Your task to perform on an android device: Search for the new Steph Curry shoes on Nike.com Image 0: 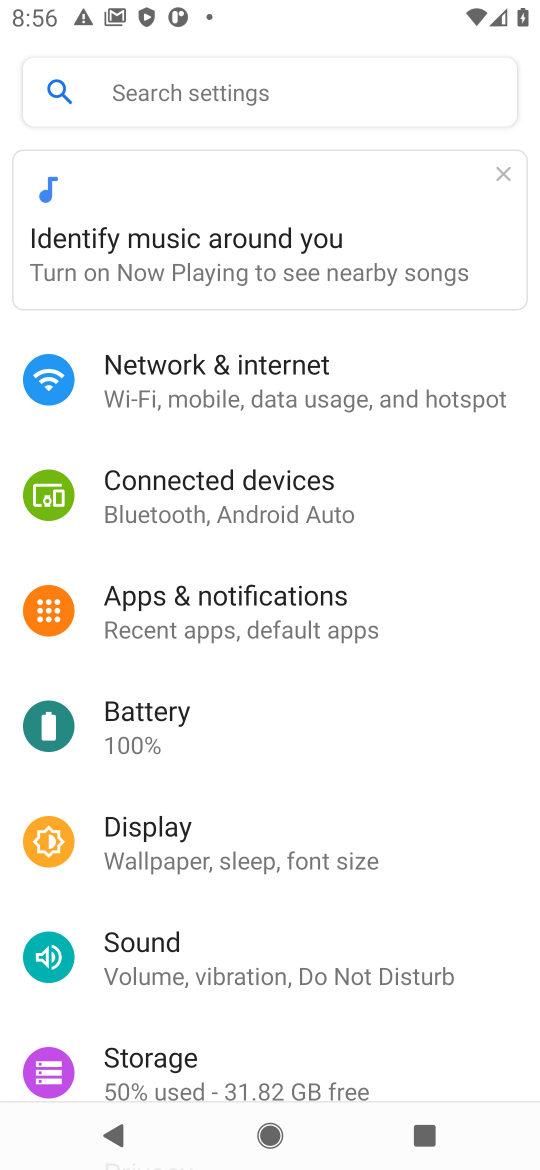
Step 0: press home button
Your task to perform on an android device: Search for the new Steph Curry shoes on Nike.com Image 1: 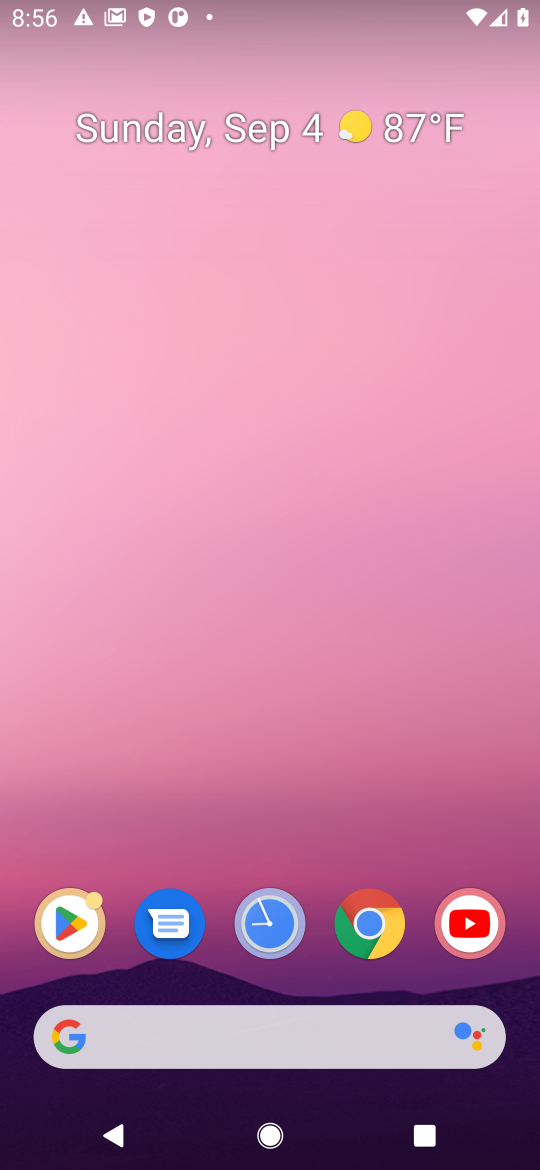
Step 1: click (419, 1027)
Your task to perform on an android device: Search for the new Steph Curry shoes on Nike.com Image 2: 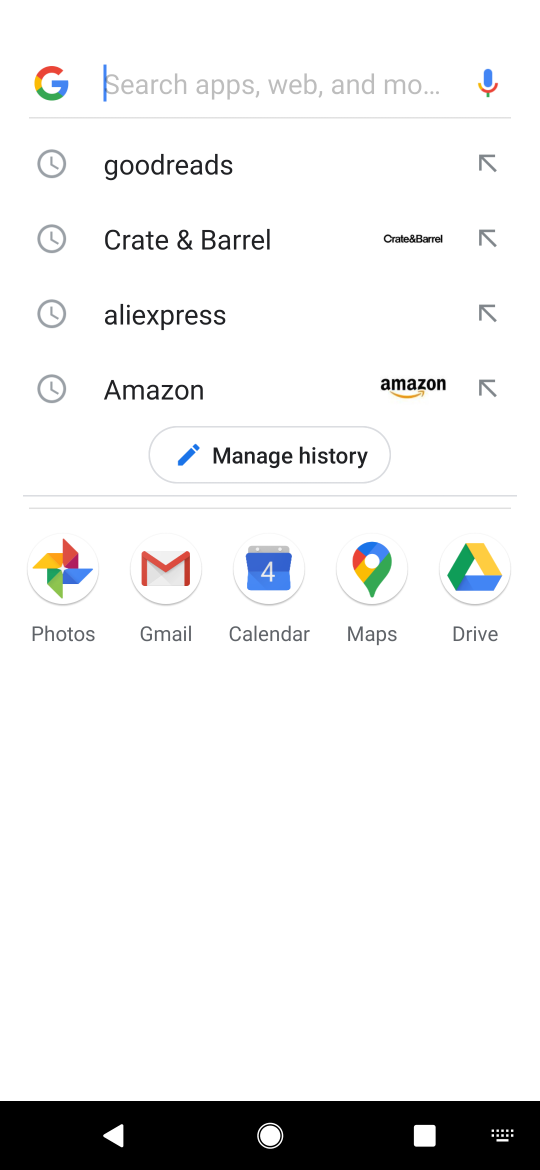
Step 2: type "nike.com"
Your task to perform on an android device: Search for the new Steph Curry shoes on Nike.com Image 3: 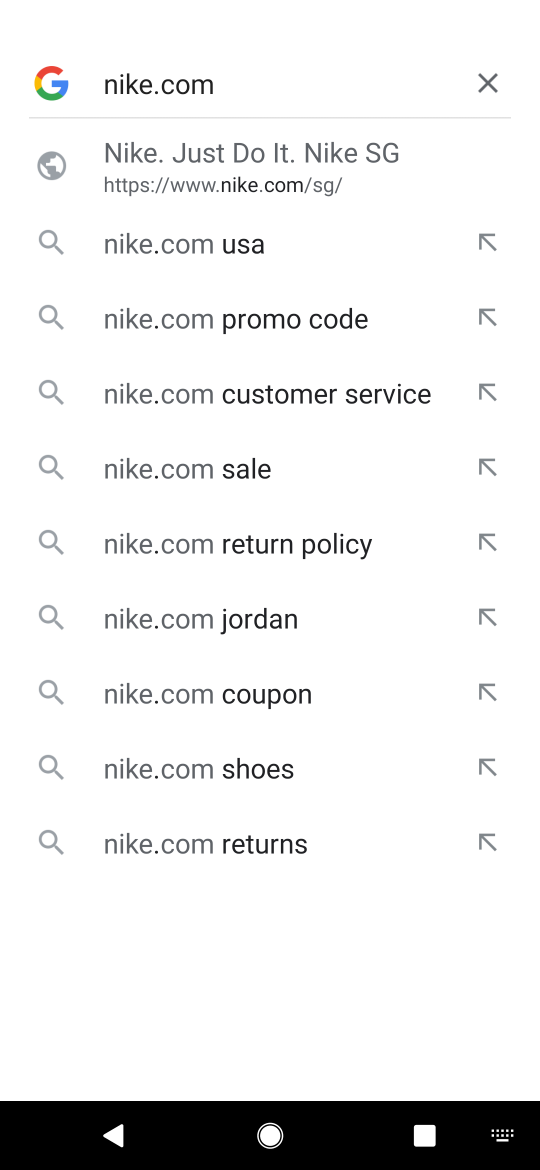
Step 3: press enter
Your task to perform on an android device: Search for the new Steph Curry shoes on Nike.com Image 4: 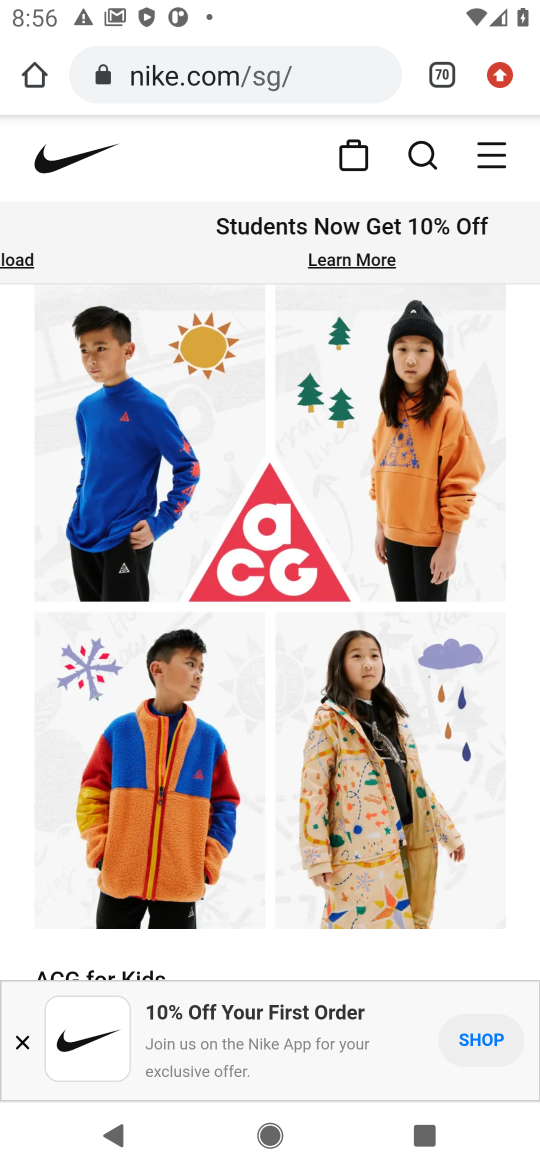
Step 4: click (426, 147)
Your task to perform on an android device: Search for the new Steph Curry shoes on Nike.com Image 5: 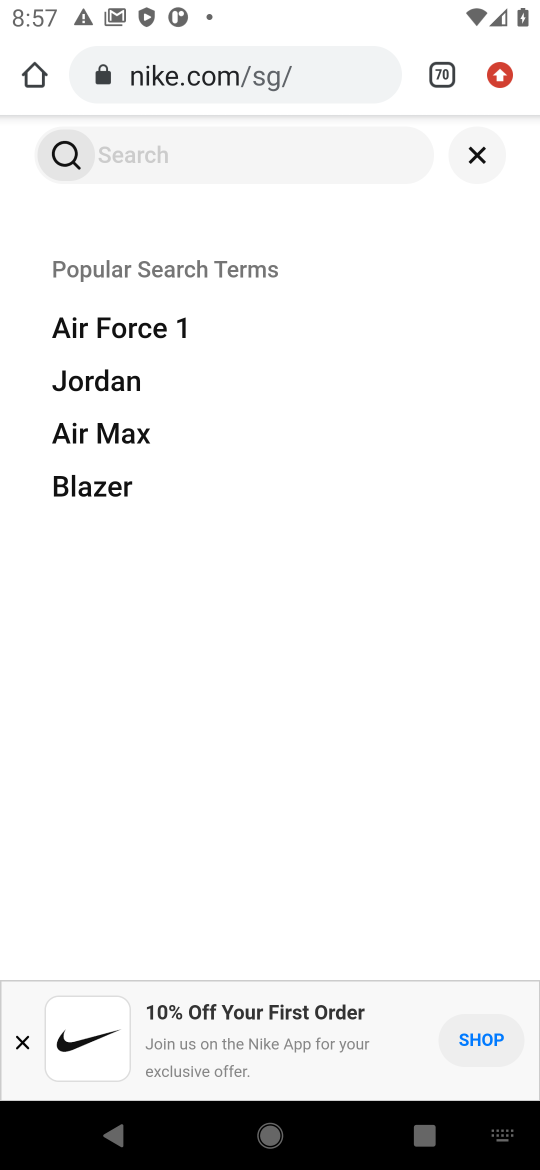
Step 5: press enter
Your task to perform on an android device: Search for the new Steph Curry shoes on Nike.com Image 6: 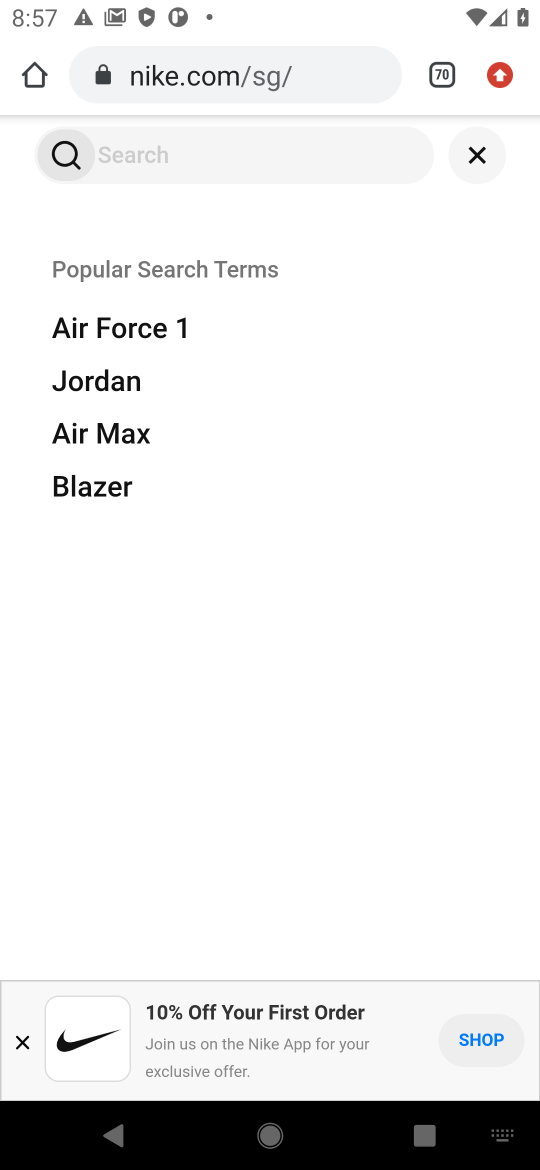
Step 6: type "steph curry shoes"
Your task to perform on an android device: Search for the new Steph Curry shoes on Nike.com Image 7: 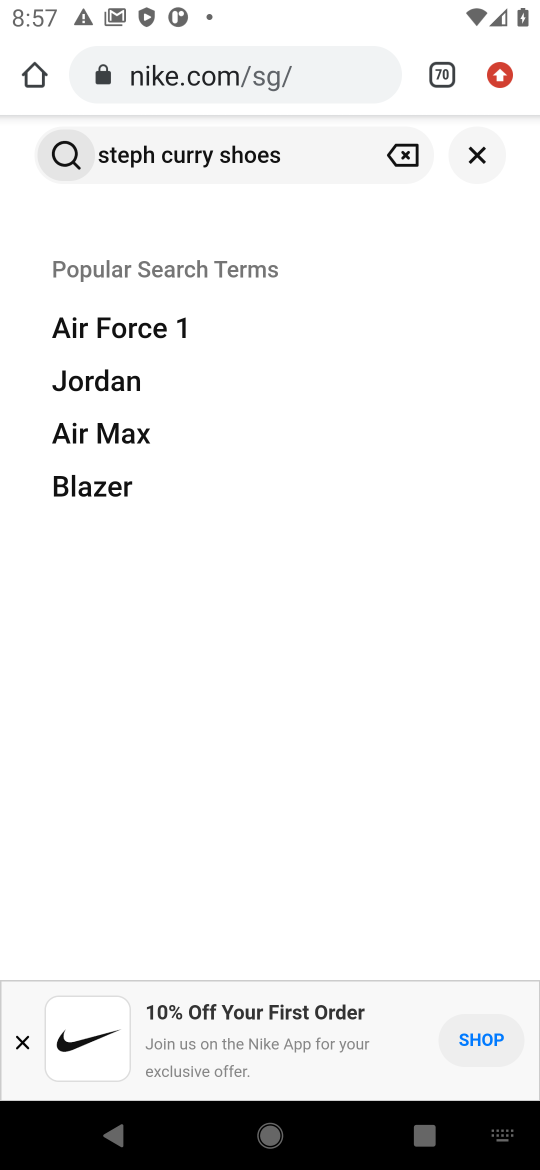
Step 7: click (59, 147)
Your task to perform on an android device: Search for the new Steph Curry shoes on Nike.com Image 8: 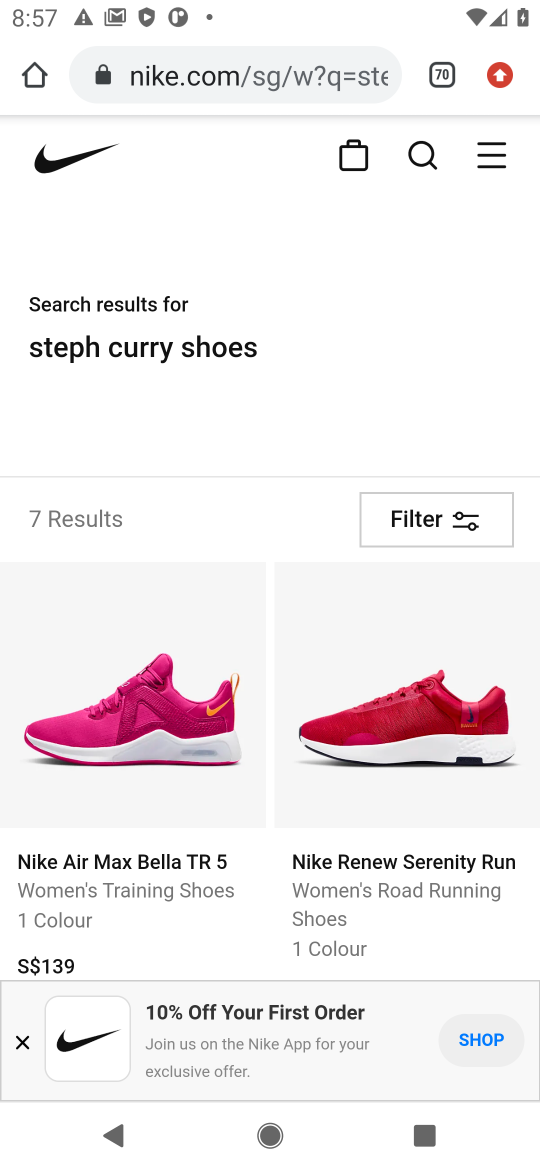
Step 8: task complete